Your task to perform on an android device: Turn off the flashlight Image 0: 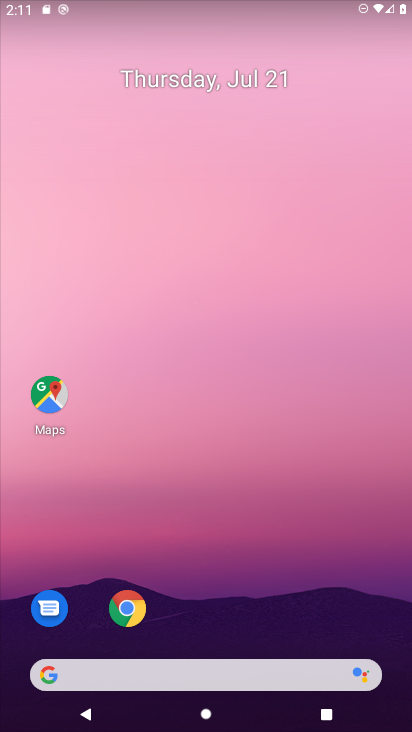
Step 0: drag from (219, 610) to (219, 159)
Your task to perform on an android device: Turn off the flashlight Image 1: 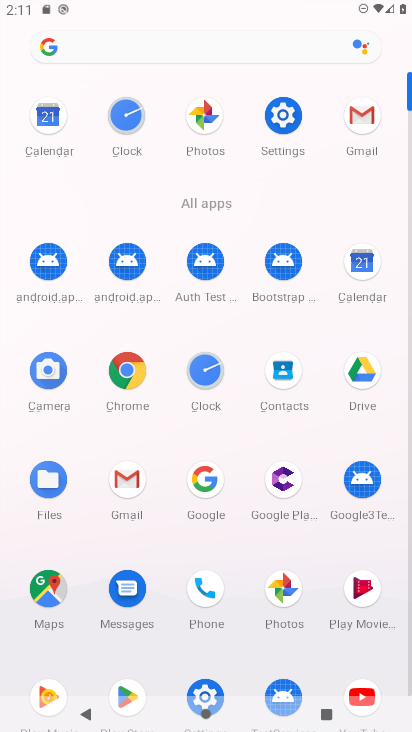
Step 1: click (289, 125)
Your task to perform on an android device: Turn off the flashlight Image 2: 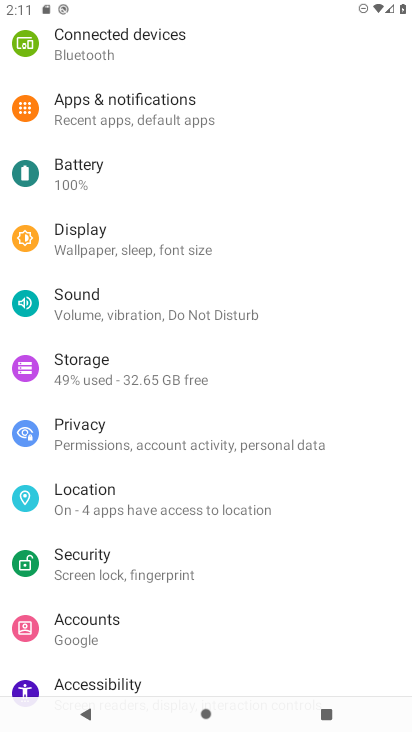
Step 2: task complete